Your task to perform on an android device: allow cookies in the chrome app Image 0: 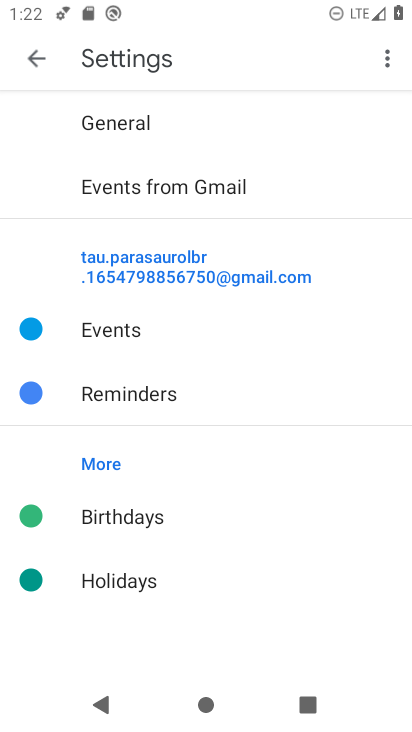
Step 0: press home button
Your task to perform on an android device: allow cookies in the chrome app Image 1: 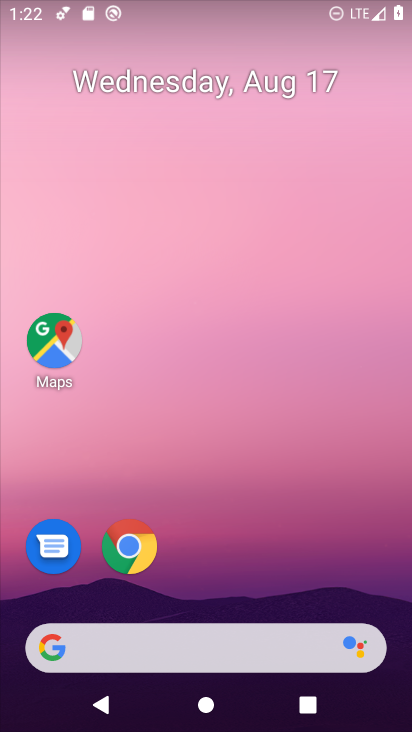
Step 1: click (131, 543)
Your task to perform on an android device: allow cookies in the chrome app Image 2: 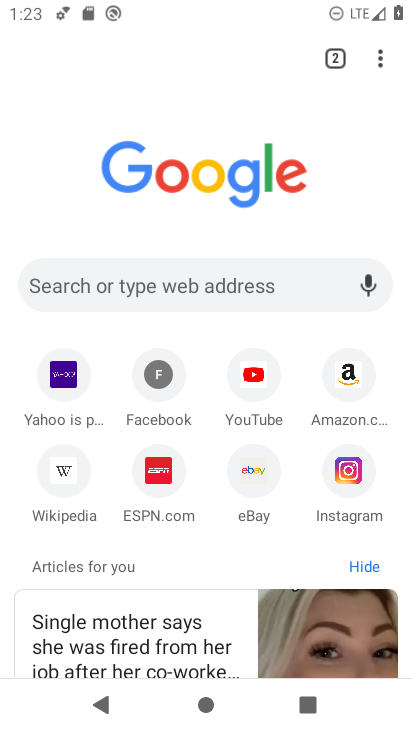
Step 2: click (381, 51)
Your task to perform on an android device: allow cookies in the chrome app Image 3: 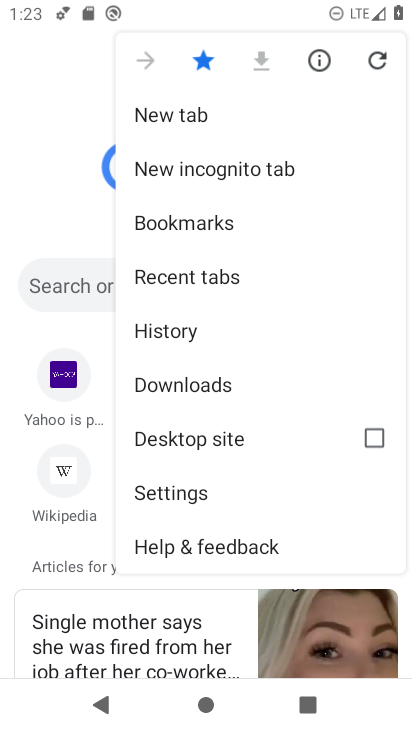
Step 3: click (188, 492)
Your task to perform on an android device: allow cookies in the chrome app Image 4: 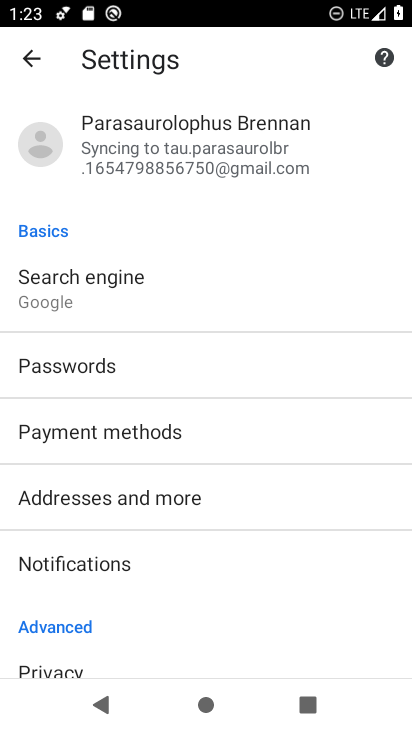
Step 4: drag from (234, 609) to (218, 309)
Your task to perform on an android device: allow cookies in the chrome app Image 5: 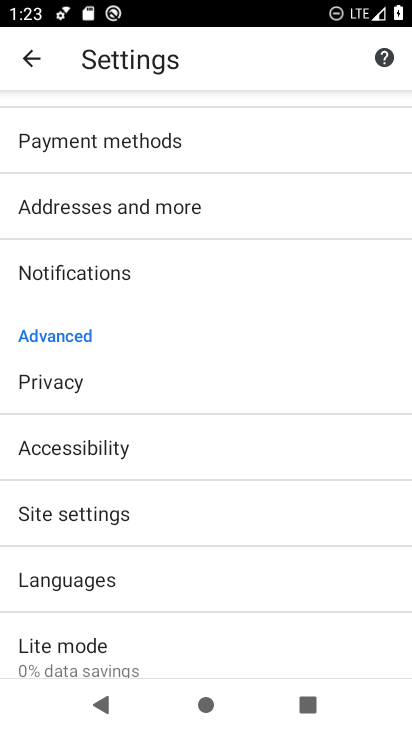
Step 5: click (95, 508)
Your task to perform on an android device: allow cookies in the chrome app Image 6: 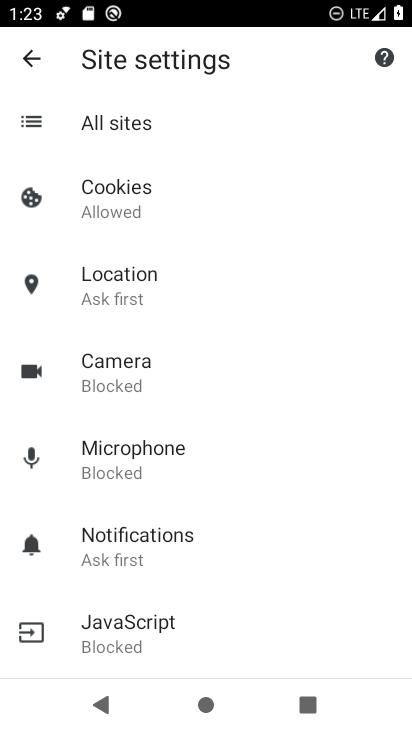
Step 6: click (113, 190)
Your task to perform on an android device: allow cookies in the chrome app Image 7: 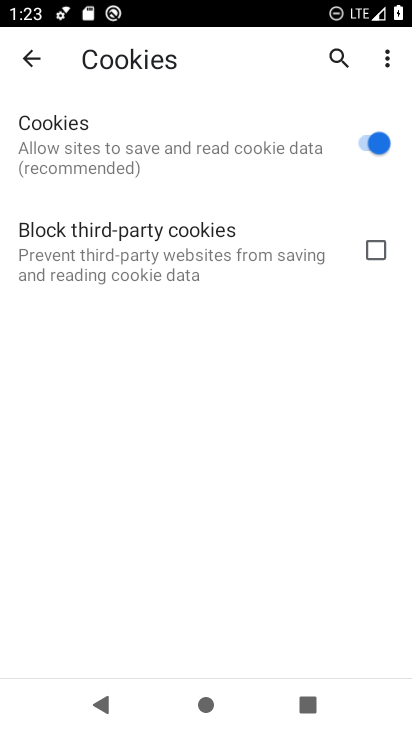
Step 7: task complete